Your task to perform on an android device: Search for Italian restaurants on Maps Image 0: 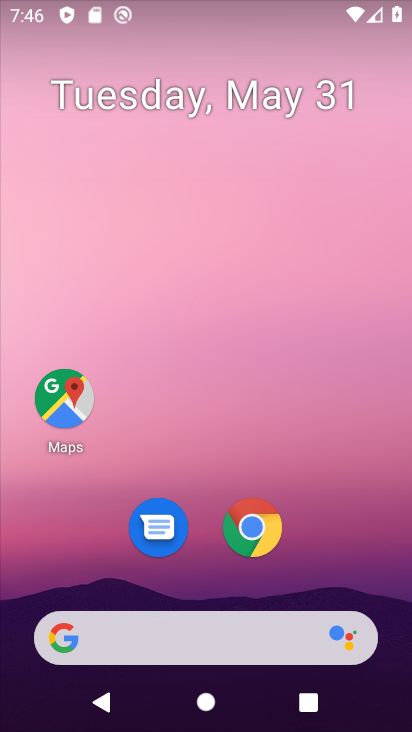
Step 0: click (71, 400)
Your task to perform on an android device: Search for Italian restaurants on Maps Image 1: 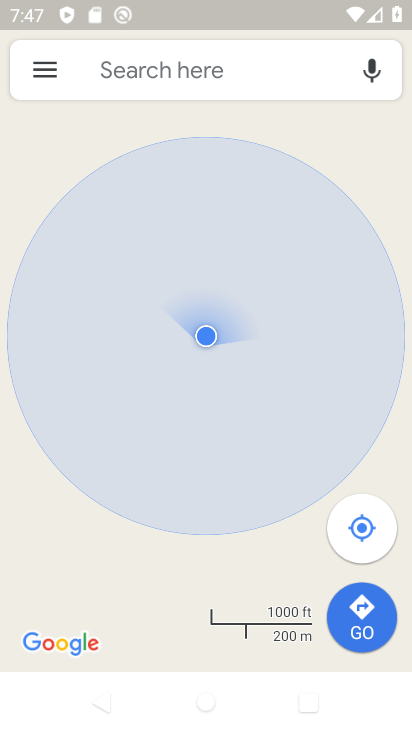
Step 1: click (195, 85)
Your task to perform on an android device: Search for Italian restaurants on Maps Image 2: 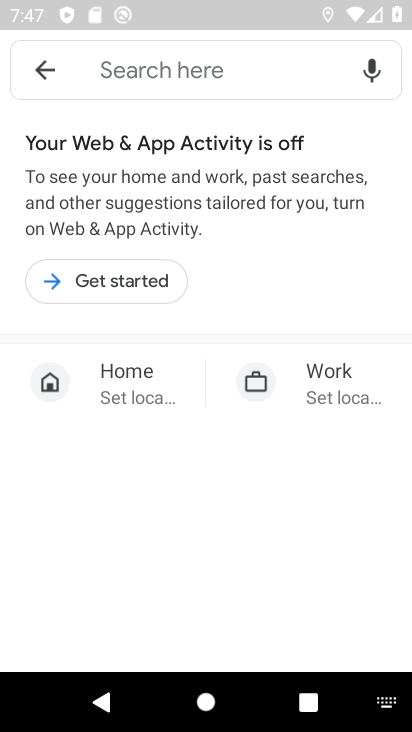
Step 2: type "italian restaurants"
Your task to perform on an android device: Search for Italian restaurants on Maps Image 3: 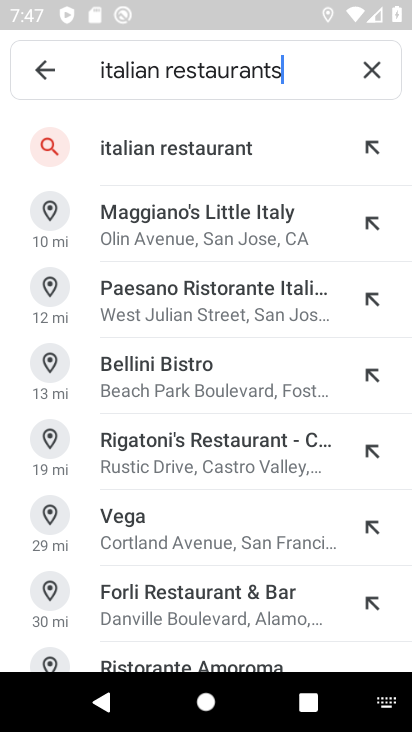
Step 3: click (215, 138)
Your task to perform on an android device: Search for Italian restaurants on Maps Image 4: 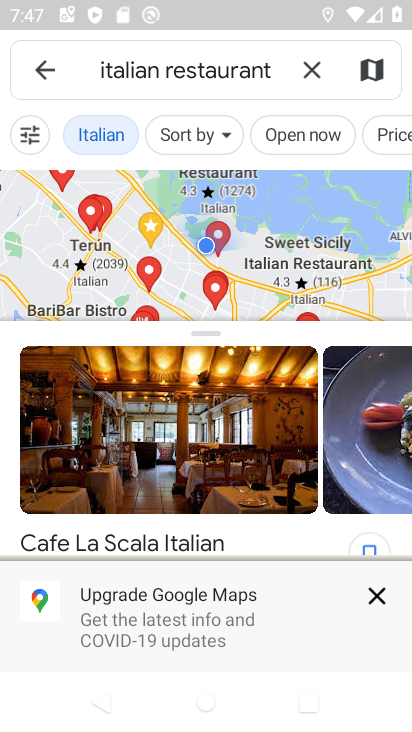
Step 4: task complete